Your task to perform on an android device: toggle show notifications on the lock screen Image 0: 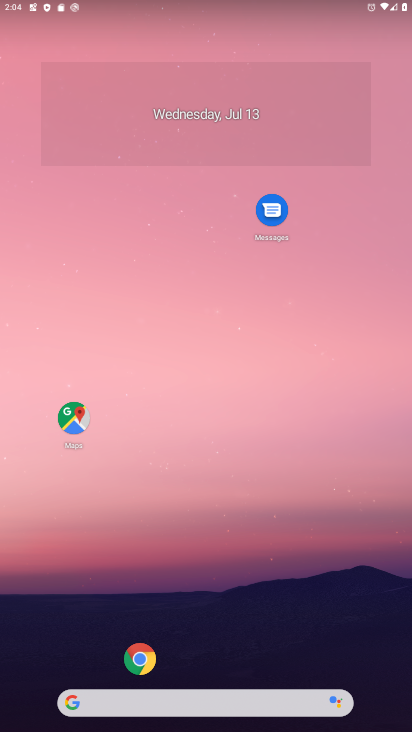
Step 0: drag from (61, 605) to (145, 236)
Your task to perform on an android device: toggle show notifications on the lock screen Image 1: 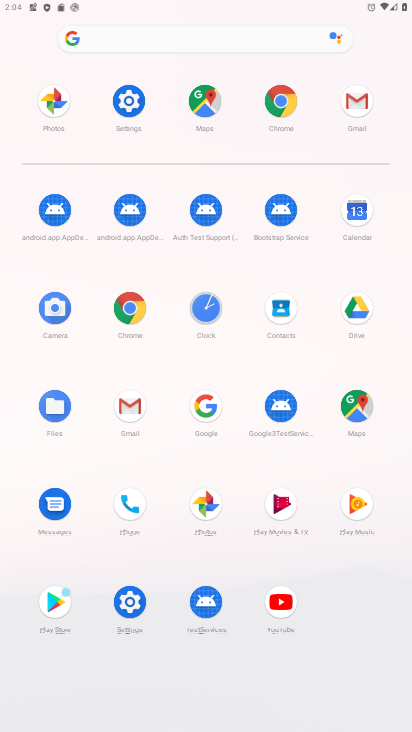
Step 1: click (124, 611)
Your task to perform on an android device: toggle show notifications on the lock screen Image 2: 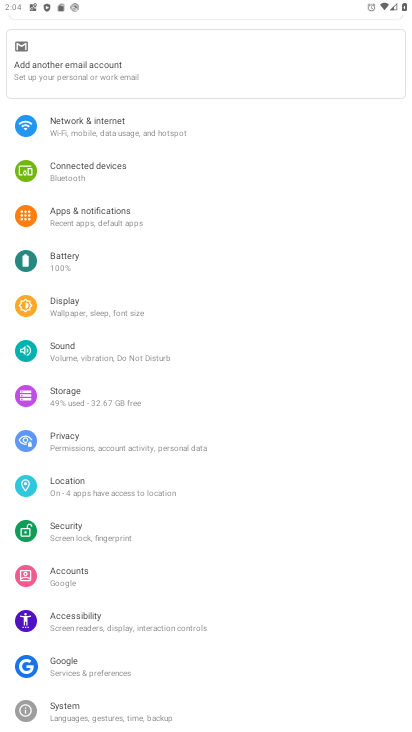
Step 2: click (87, 220)
Your task to perform on an android device: toggle show notifications on the lock screen Image 3: 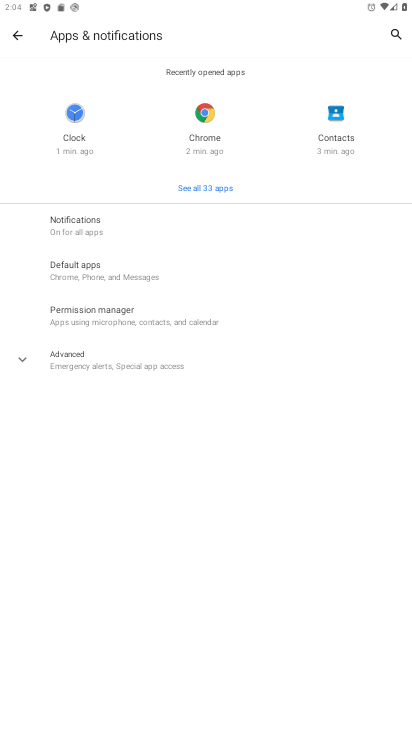
Step 3: click (68, 223)
Your task to perform on an android device: toggle show notifications on the lock screen Image 4: 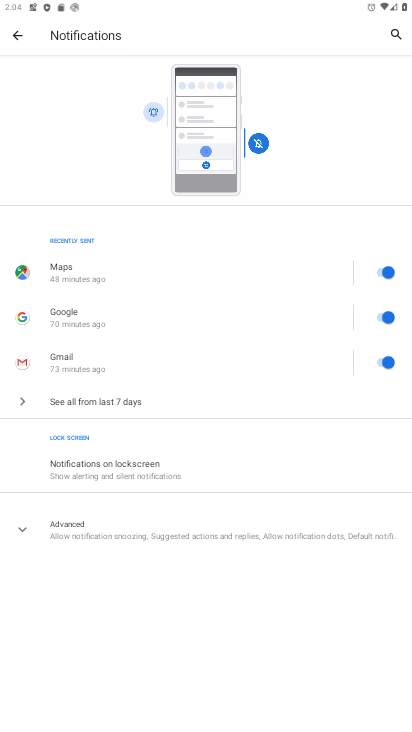
Step 4: click (91, 462)
Your task to perform on an android device: toggle show notifications on the lock screen Image 5: 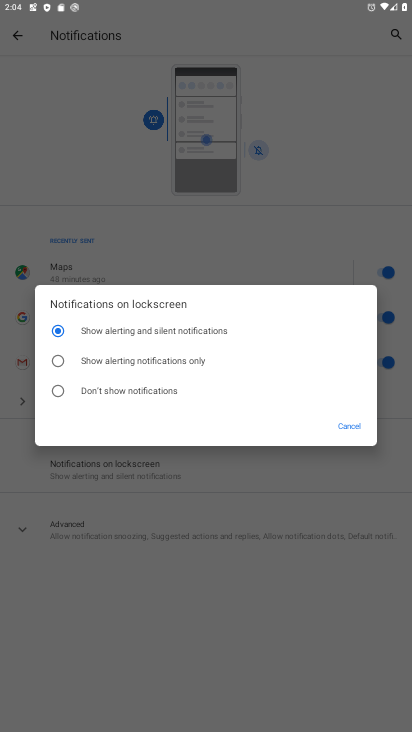
Step 5: click (91, 462)
Your task to perform on an android device: toggle show notifications on the lock screen Image 6: 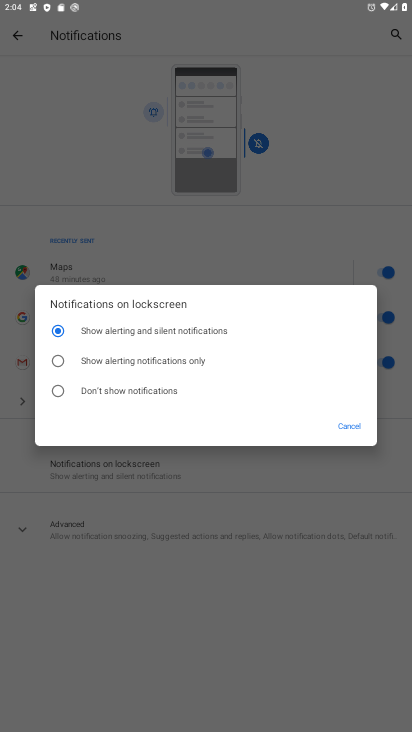
Step 6: click (61, 362)
Your task to perform on an android device: toggle show notifications on the lock screen Image 7: 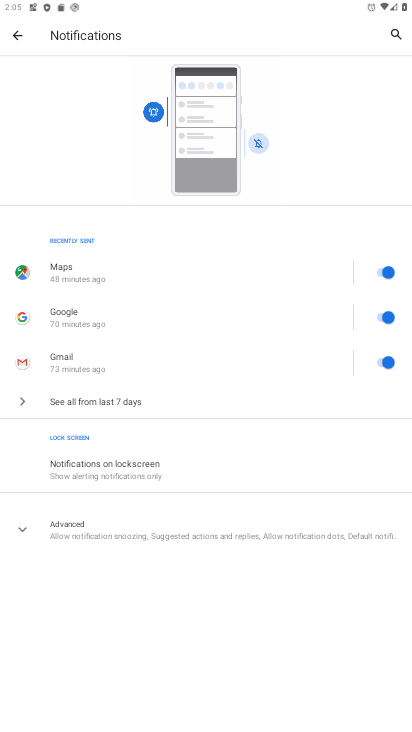
Step 7: task complete